Your task to perform on an android device: remove spam from my inbox in the gmail app Image 0: 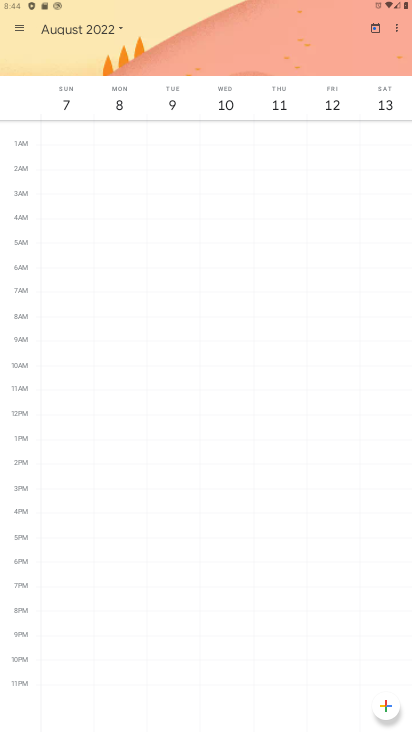
Step 0: press home button
Your task to perform on an android device: remove spam from my inbox in the gmail app Image 1: 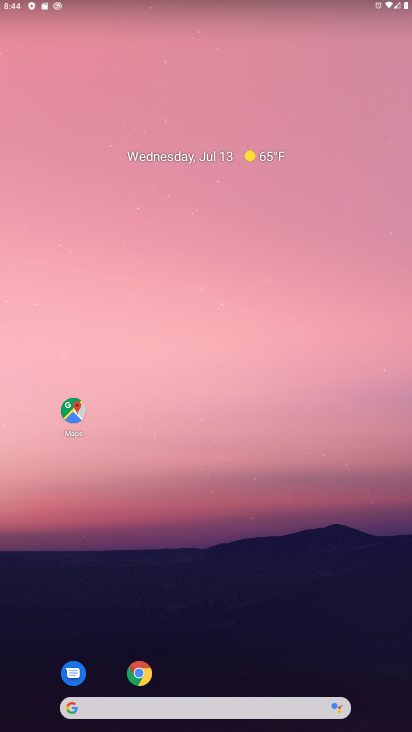
Step 1: drag from (220, 706) to (229, 211)
Your task to perform on an android device: remove spam from my inbox in the gmail app Image 2: 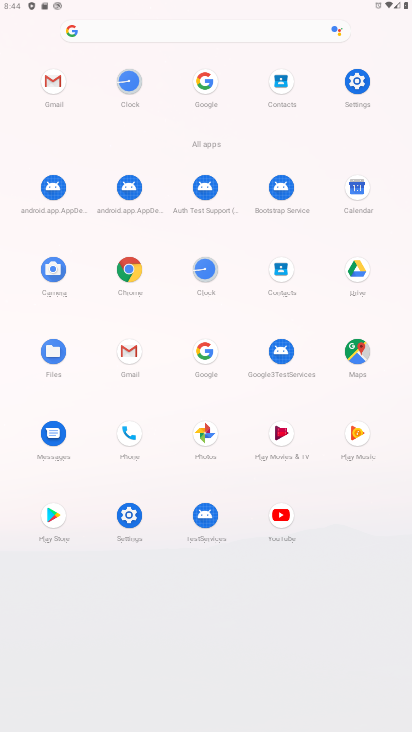
Step 2: click (51, 79)
Your task to perform on an android device: remove spam from my inbox in the gmail app Image 3: 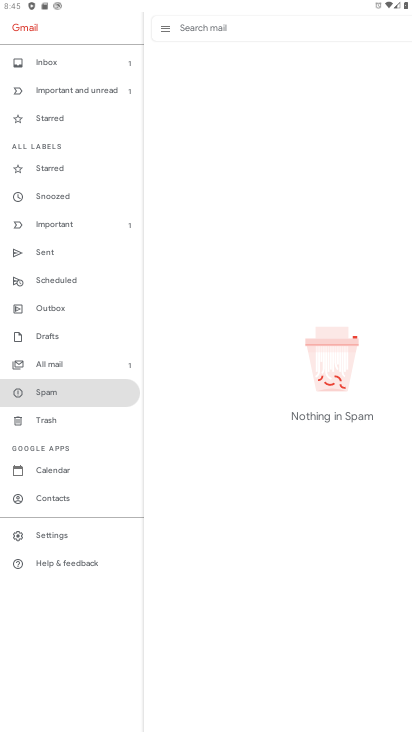
Step 3: click (50, 387)
Your task to perform on an android device: remove spam from my inbox in the gmail app Image 4: 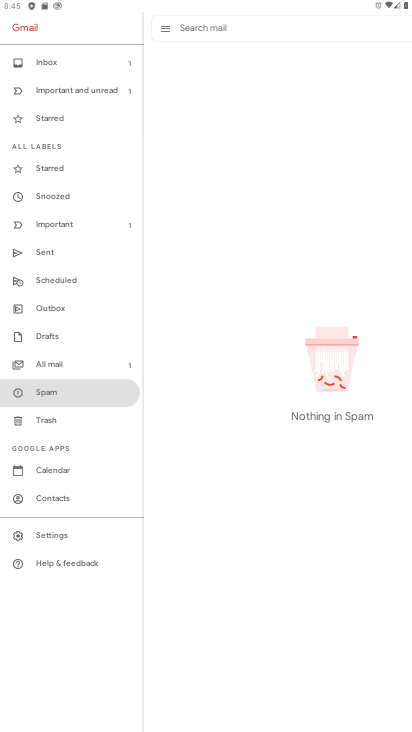
Step 4: task complete